Your task to perform on an android device: Go to battery settings Image 0: 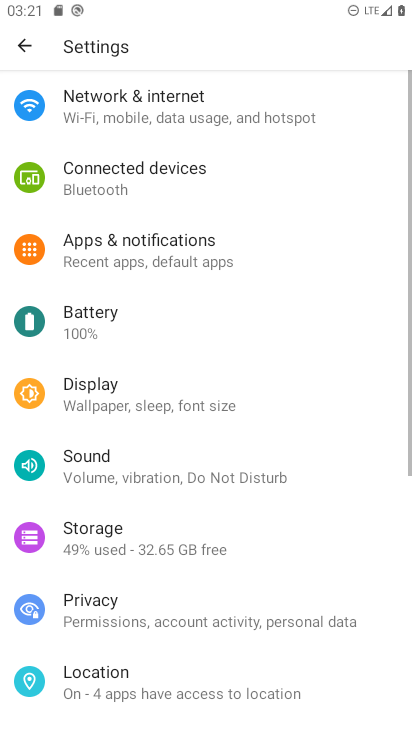
Step 0: click (79, 317)
Your task to perform on an android device: Go to battery settings Image 1: 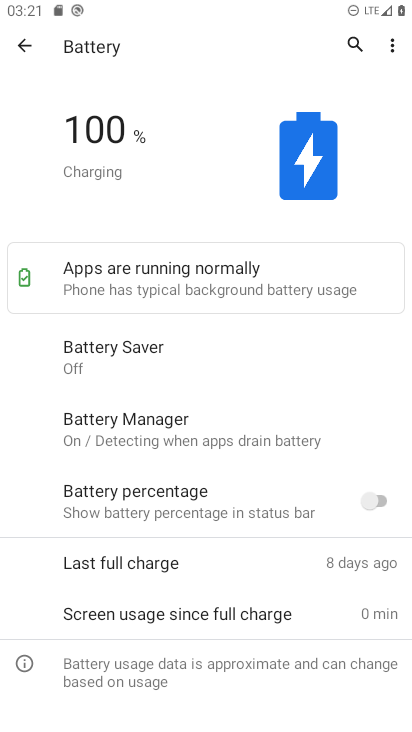
Step 1: task complete